Your task to perform on an android device: toggle translation in the chrome app Image 0: 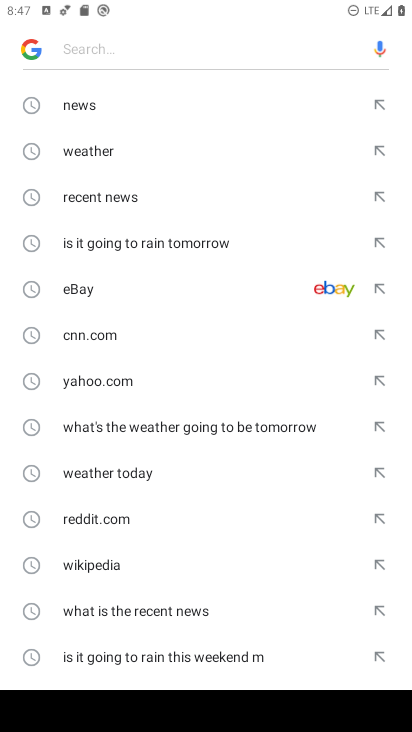
Step 0: press home button
Your task to perform on an android device: toggle translation in the chrome app Image 1: 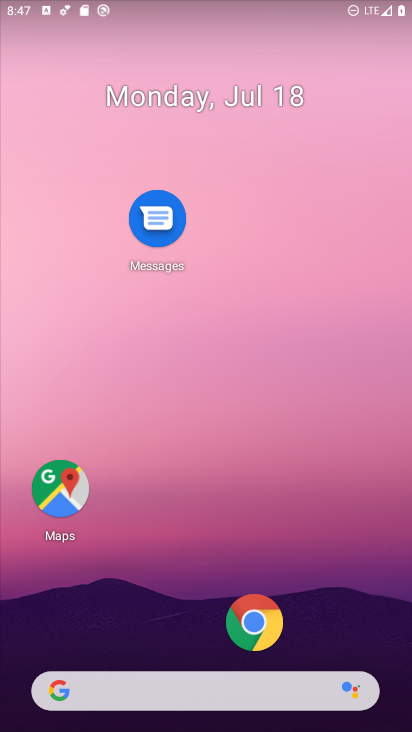
Step 1: drag from (105, 637) to (142, 42)
Your task to perform on an android device: toggle translation in the chrome app Image 2: 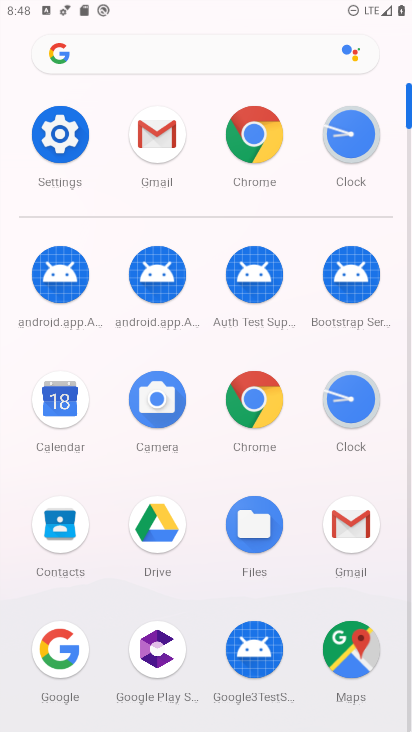
Step 2: click (265, 400)
Your task to perform on an android device: toggle translation in the chrome app Image 3: 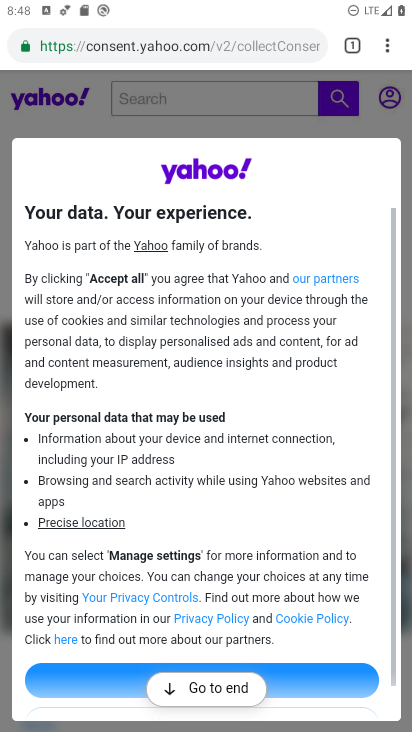
Step 3: click (392, 45)
Your task to perform on an android device: toggle translation in the chrome app Image 4: 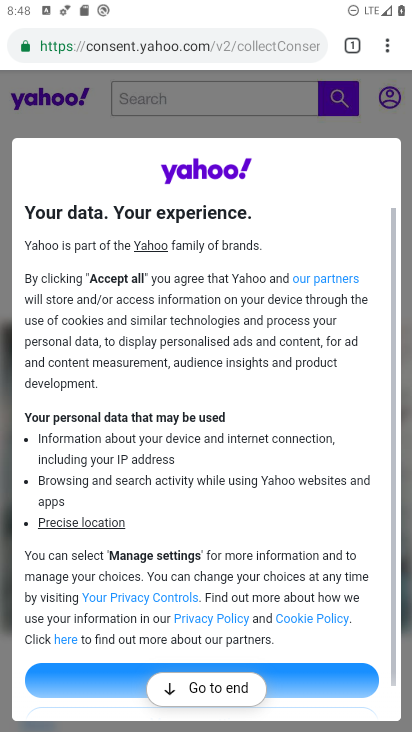
Step 4: click (396, 43)
Your task to perform on an android device: toggle translation in the chrome app Image 5: 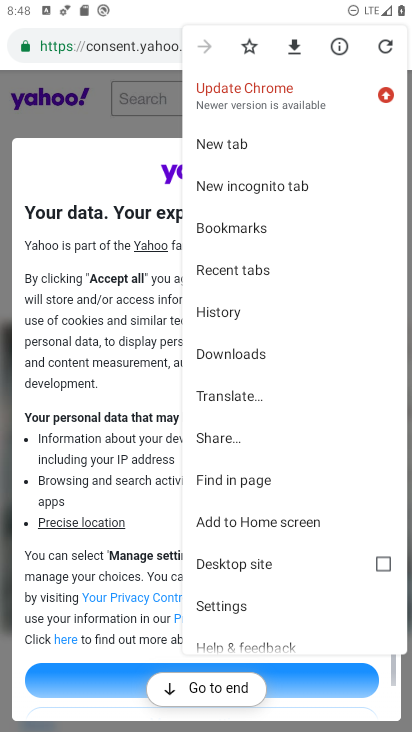
Step 5: click (257, 384)
Your task to perform on an android device: toggle translation in the chrome app Image 6: 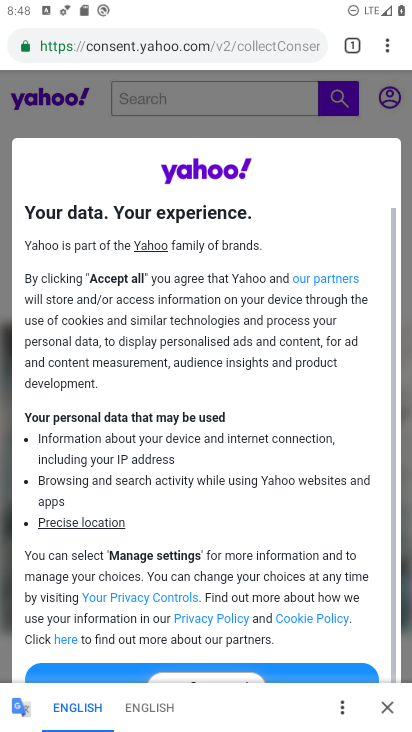
Step 6: click (349, 715)
Your task to perform on an android device: toggle translation in the chrome app Image 7: 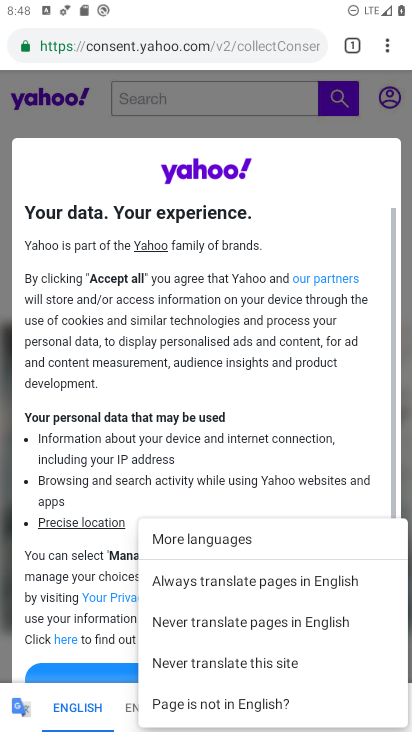
Step 7: click (262, 582)
Your task to perform on an android device: toggle translation in the chrome app Image 8: 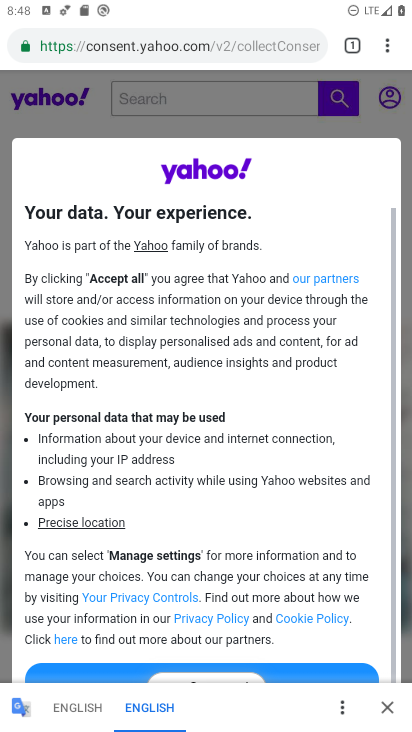
Step 8: task complete